Your task to perform on an android device: turn on airplane mode Image 0: 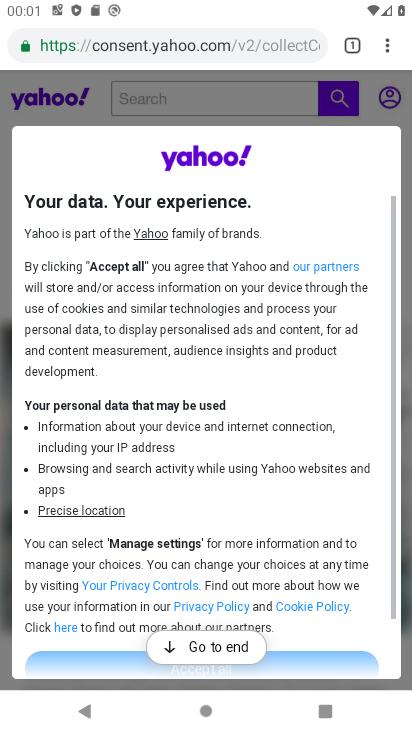
Step 0: press home button
Your task to perform on an android device: turn on airplane mode Image 1: 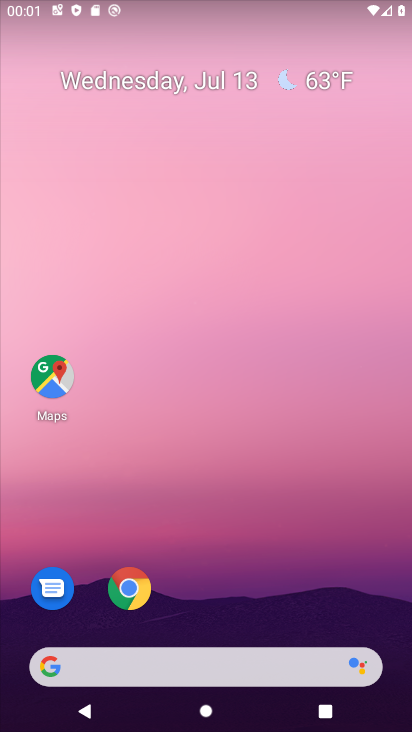
Step 1: drag from (41, 710) to (137, 295)
Your task to perform on an android device: turn on airplane mode Image 2: 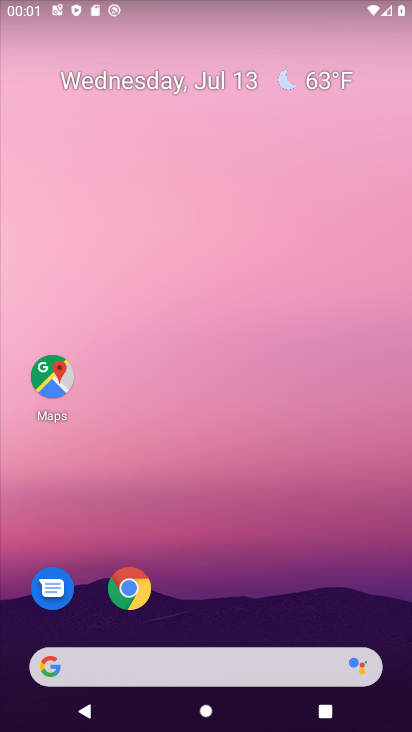
Step 2: drag from (58, 696) to (262, 5)
Your task to perform on an android device: turn on airplane mode Image 3: 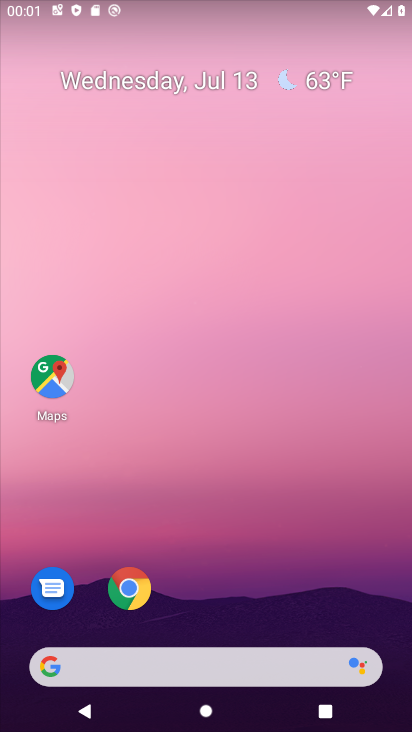
Step 3: drag from (22, 708) to (233, 54)
Your task to perform on an android device: turn on airplane mode Image 4: 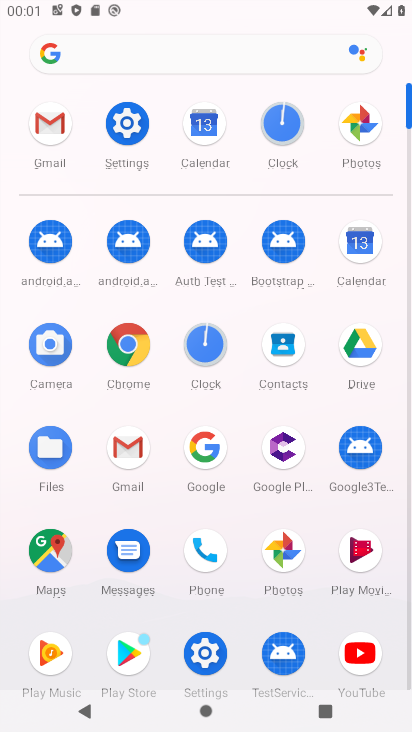
Step 4: click (197, 645)
Your task to perform on an android device: turn on airplane mode Image 5: 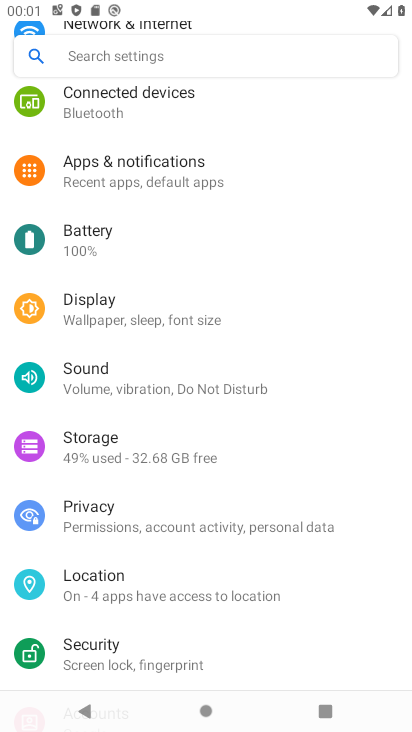
Step 5: drag from (292, 112) to (234, 462)
Your task to perform on an android device: turn on airplane mode Image 6: 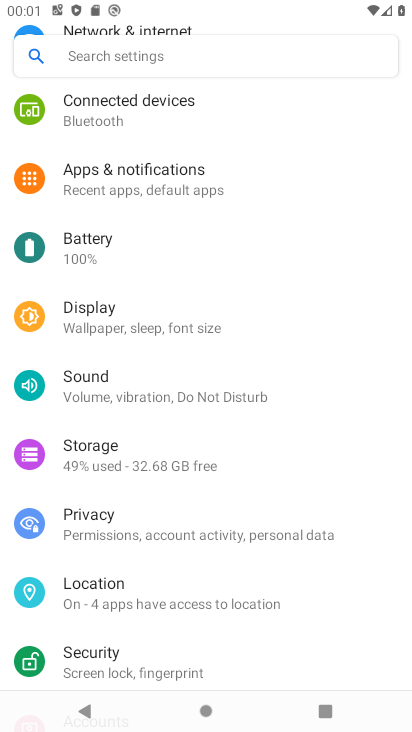
Step 6: drag from (258, 116) to (305, 573)
Your task to perform on an android device: turn on airplane mode Image 7: 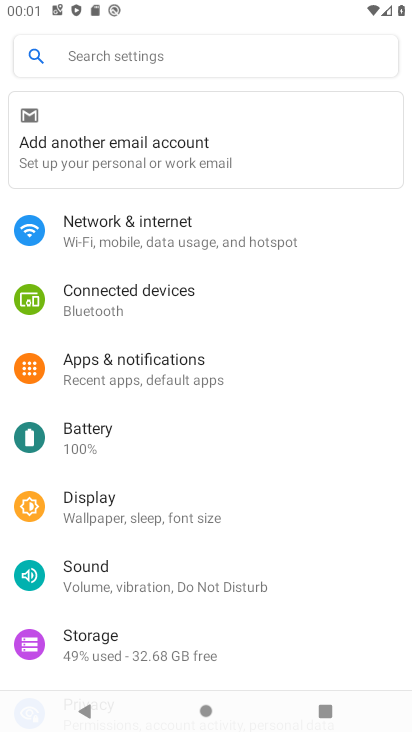
Step 7: click (144, 226)
Your task to perform on an android device: turn on airplane mode Image 8: 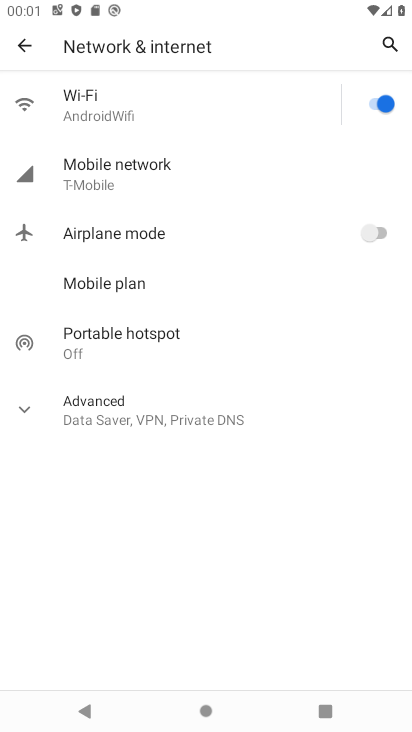
Step 8: click (370, 236)
Your task to perform on an android device: turn on airplane mode Image 9: 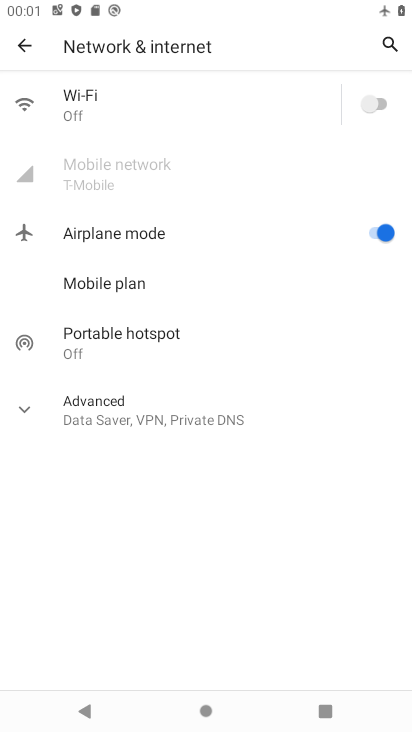
Step 9: task complete